Your task to perform on an android device: turn on airplane mode Image 0: 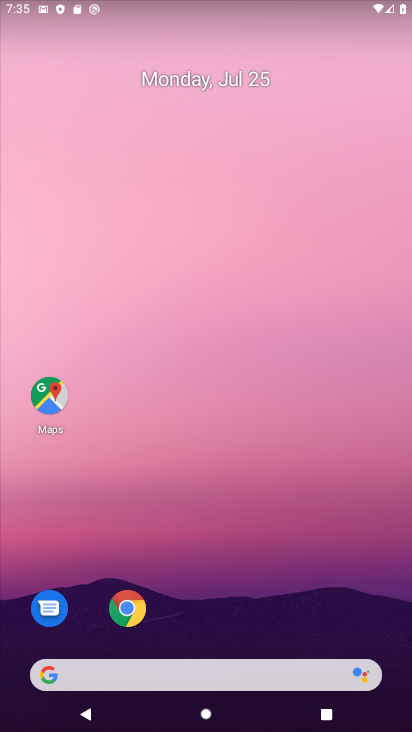
Step 0: drag from (354, 629) to (310, 136)
Your task to perform on an android device: turn on airplane mode Image 1: 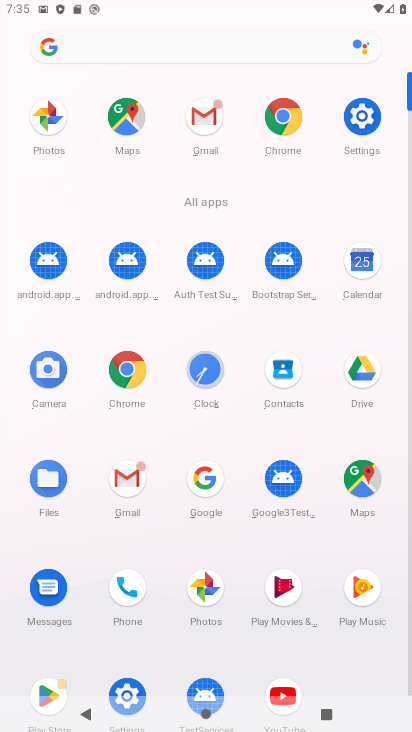
Step 1: click (380, 129)
Your task to perform on an android device: turn on airplane mode Image 2: 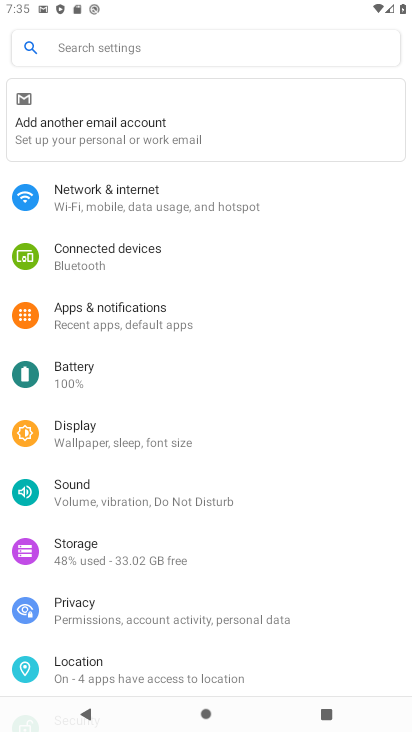
Step 2: click (122, 184)
Your task to perform on an android device: turn on airplane mode Image 3: 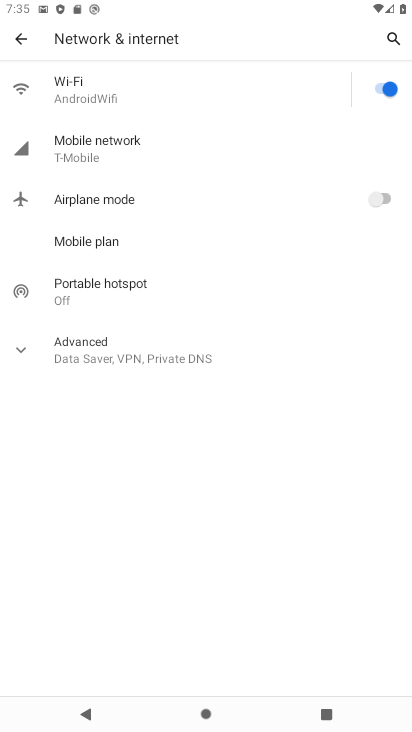
Step 3: click (375, 196)
Your task to perform on an android device: turn on airplane mode Image 4: 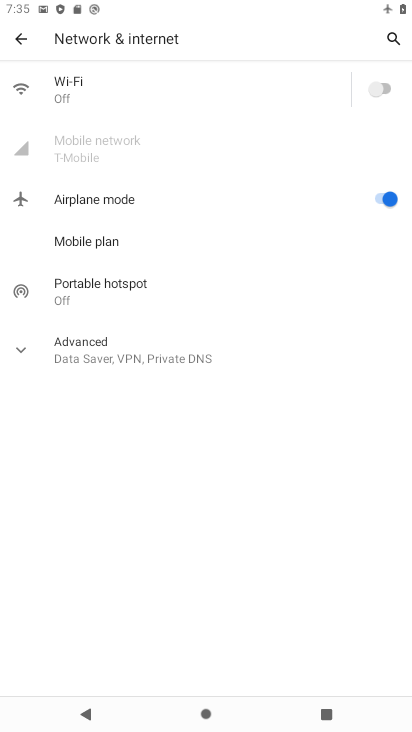
Step 4: task complete